Your task to perform on an android device: see sites visited before in the chrome app Image 0: 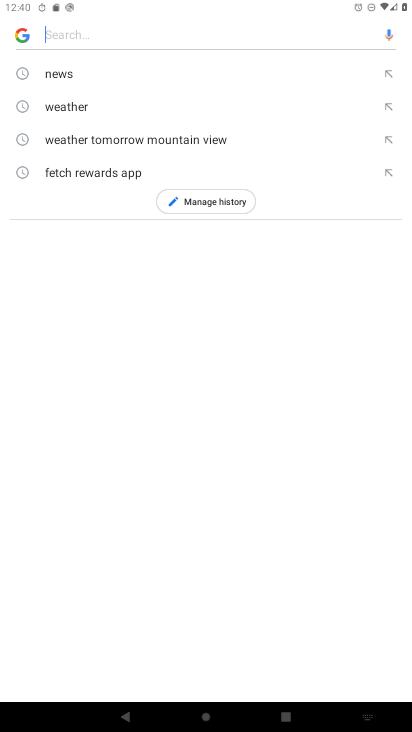
Step 0: press home button
Your task to perform on an android device: see sites visited before in the chrome app Image 1: 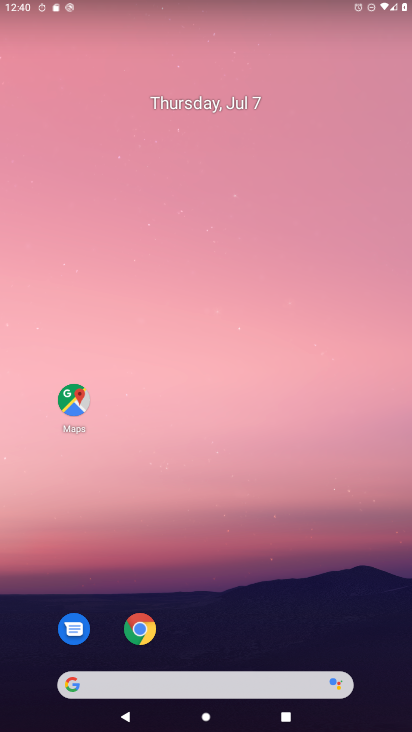
Step 1: click (139, 630)
Your task to perform on an android device: see sites visited before in the chrome app Image 2: 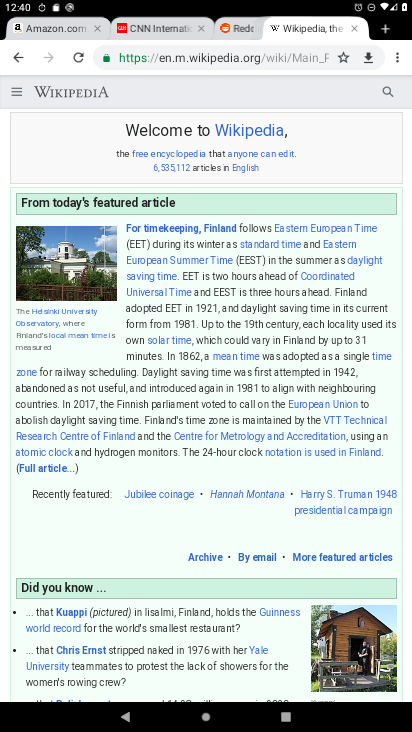
Step 2: click (391, 64)
Your task to perform on an android device: see sites visited before in the chrome app Image 3: 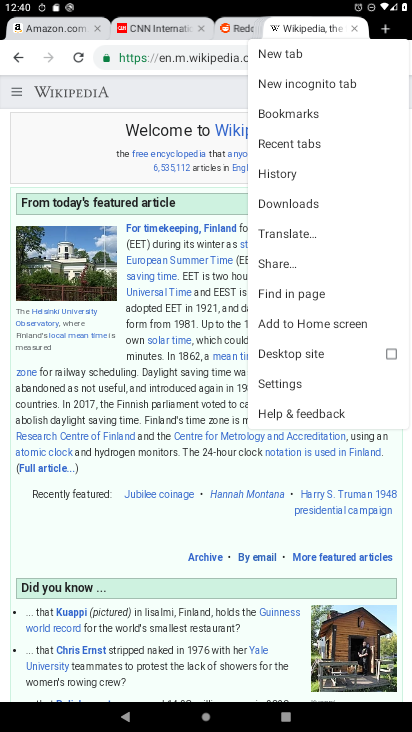
Step 3: click (307, 140)
Your task to perform on an android device: see sites visited before in the chrome app Image 4: 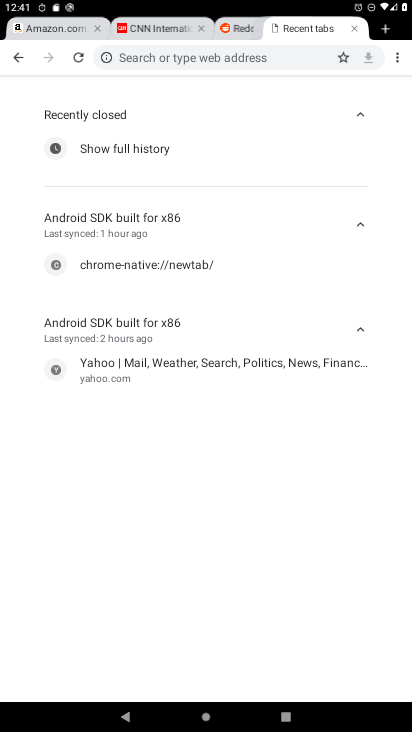
Step 4: task complete